Your task to perform on an android device: turn on wifi Image 0: 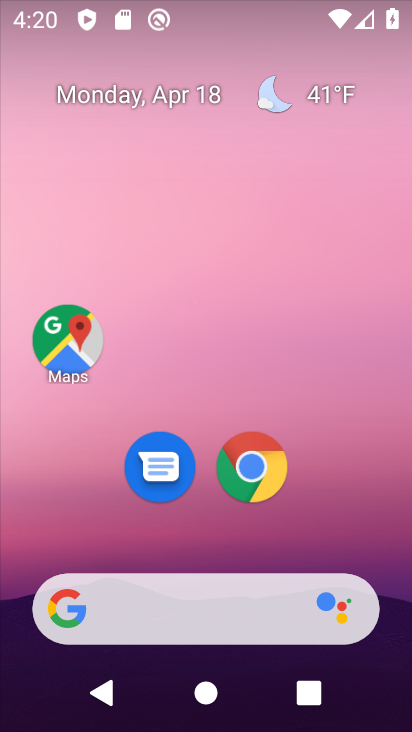
Step 0: drag from (227, 472) to (227, 119)
Your task to perform on an android device: turn on wifi Image 1: 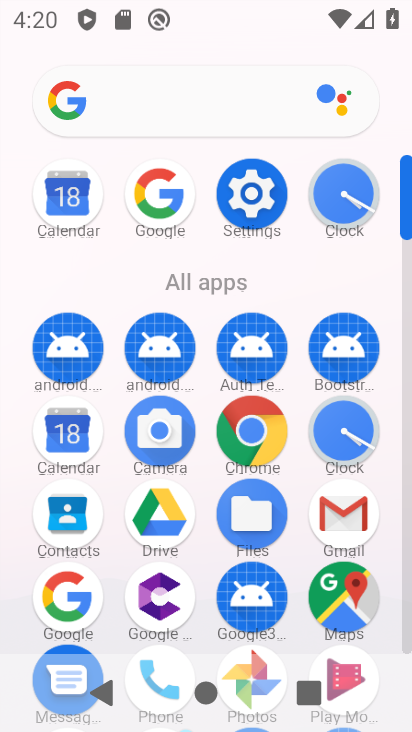
Step 1: click (261, 199)
Your task to perform on an android device: turn on wifi Image 2: 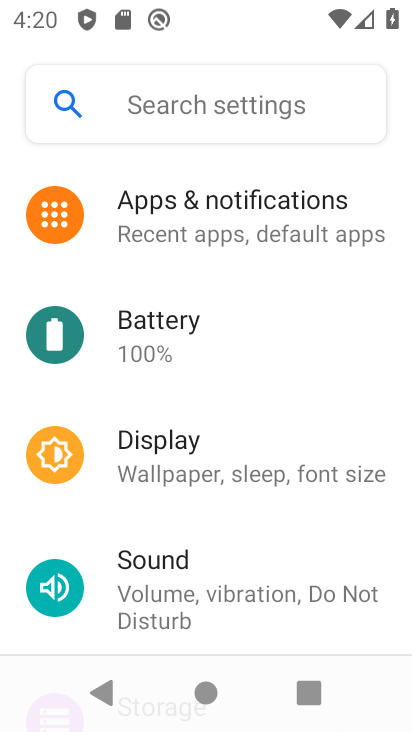
Step 2: drag from (279, 317) to (307, 516)
Your task to perform on an android device: turn on wifi Image 3: 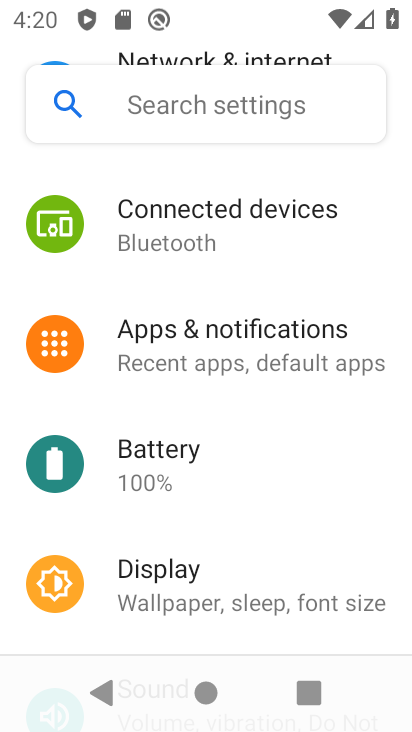
Step 3: drag from (314, 190) to (320, 434)
Your task to perform on an android device: turn on wifi Image 4: 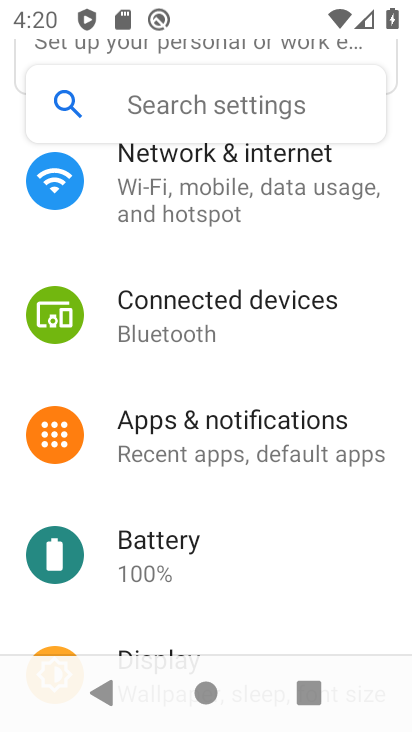
Step 4: click (316, 184)
Your task to perform on an android device: turn on wifi Image 5: 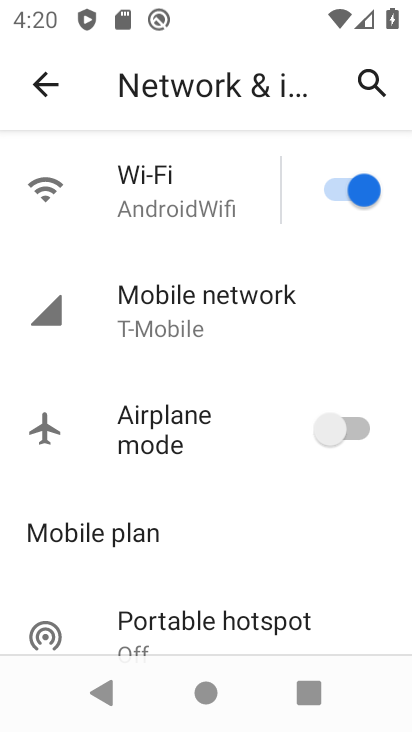
Step 5: task complete